Your task to perform on an android device: Open Google Maps Image 0: 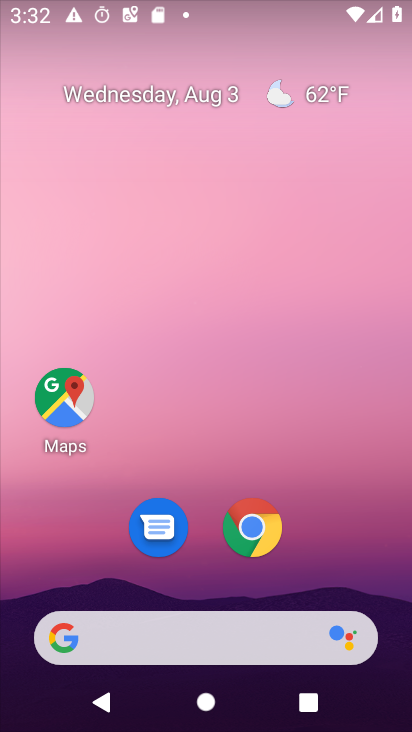
Step 0: drag from (373, 529) to (237, 186)
Your task to perform on an android device: Open Google Maps Image 1: 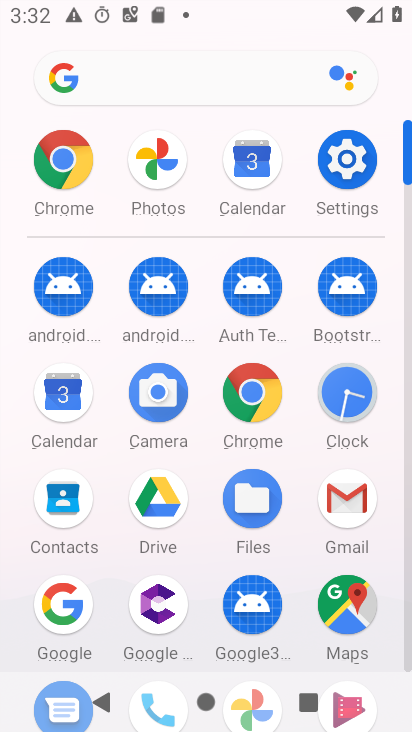
Step 1: click (355, 601)
Your task to perform on an android device: Open Google Maps Image 2: 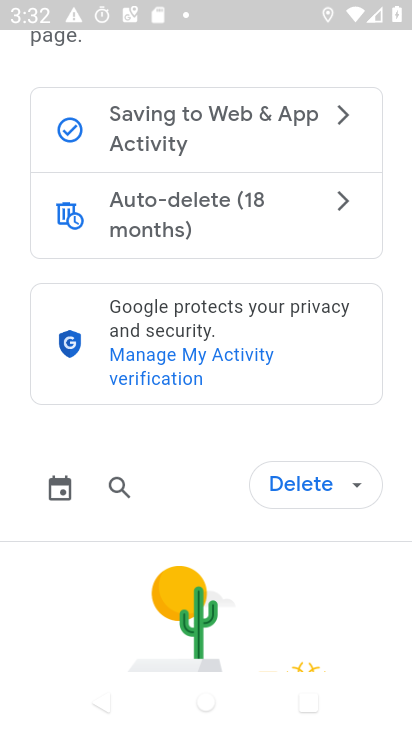
Step 2: task complete